Your task to perform on an android device: open chrome privacy settings Image 0: 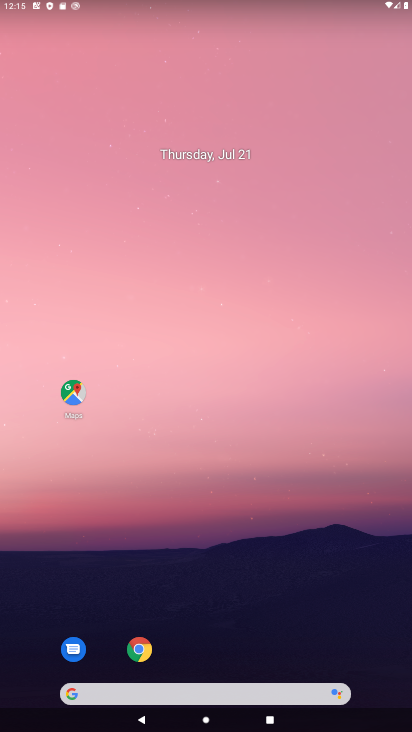
Step 0: click (140, 651)
Your task to perform on an android device: open chrome privacy settings Image 1: 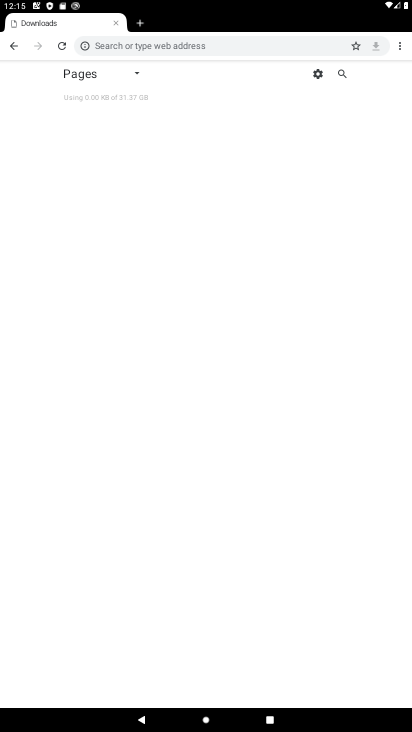
Step 1: click (398, 46)
Your task to perform on an android device: open chrome privacy settings Image 2: 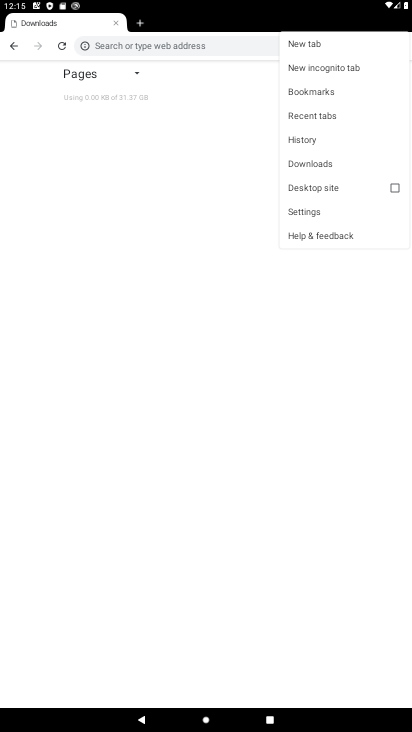
Step 2: click (293, 206)
Your task to perform on an android device: open chrome privacy settings Image 3: 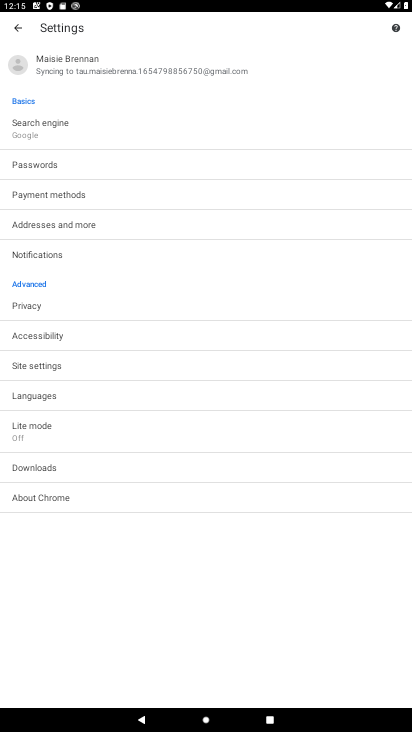
Step 3: click (25, 305)
Your task to perform on an android device: open chrome privacy settings Image 4: 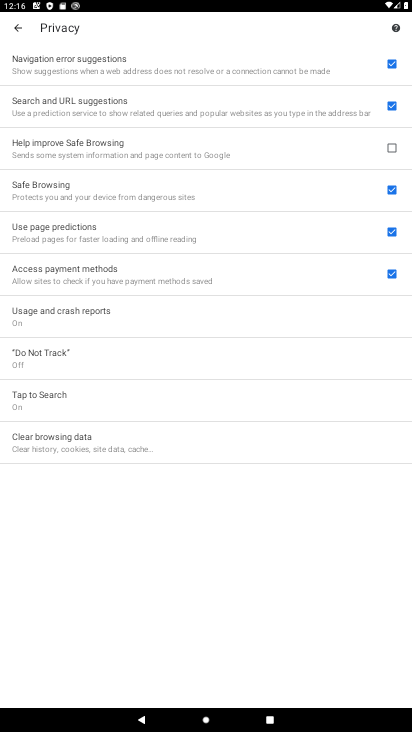
Step 4: task complete